Your task to perform on an android device: stop showing notifications on the lock screen Image 0: 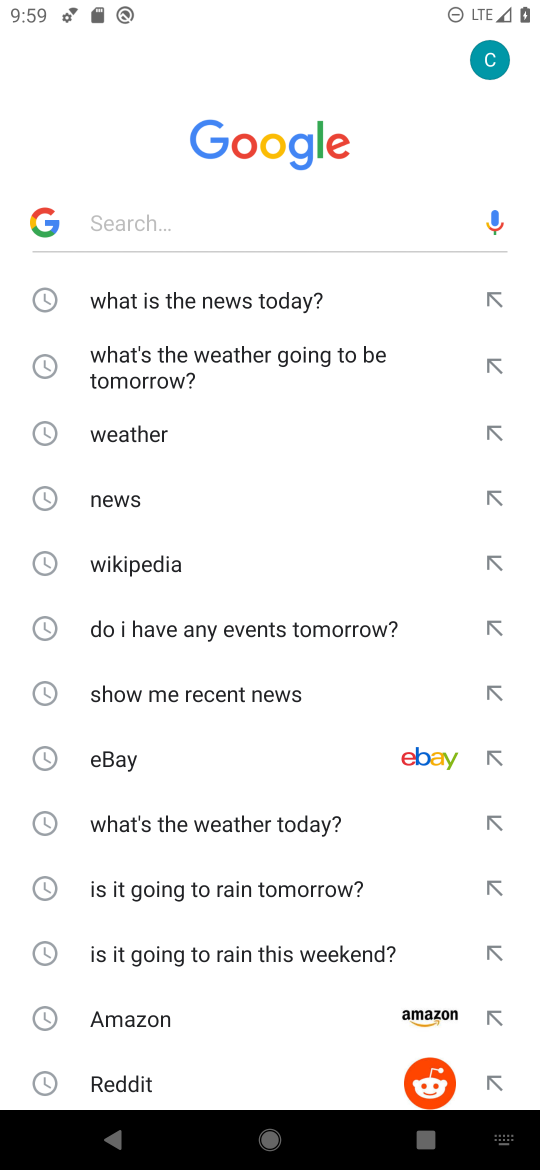
Step 0: press home button
Your task to perform on an android device: stop showing notifications on the lock screen Image 1: 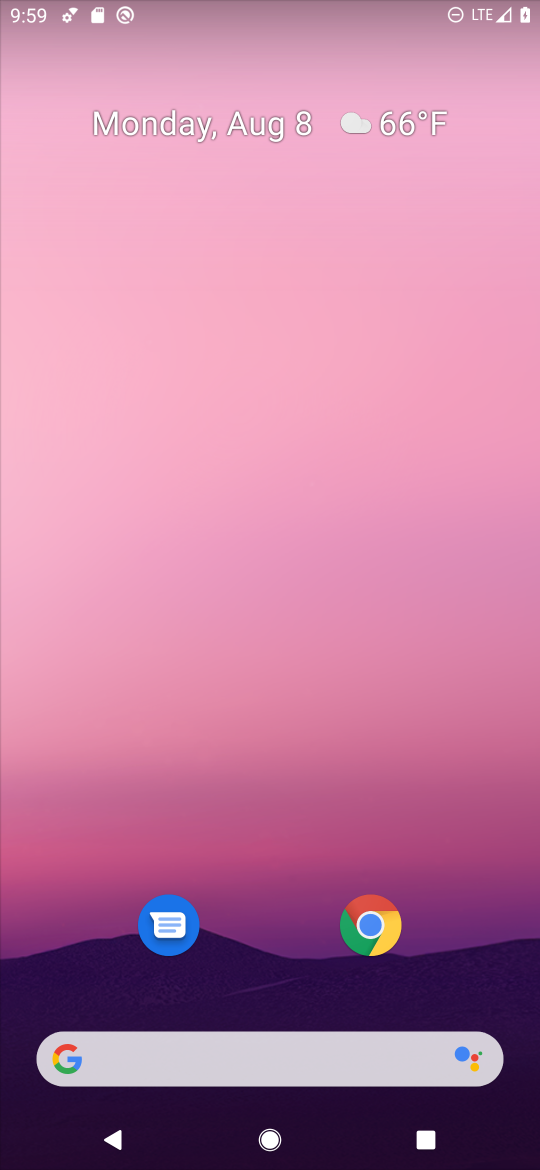
Step 1: drag from (259, 971) to (324, 36)
Your task to perform on an android device: stop showing notifications on the lock screen Image 2: 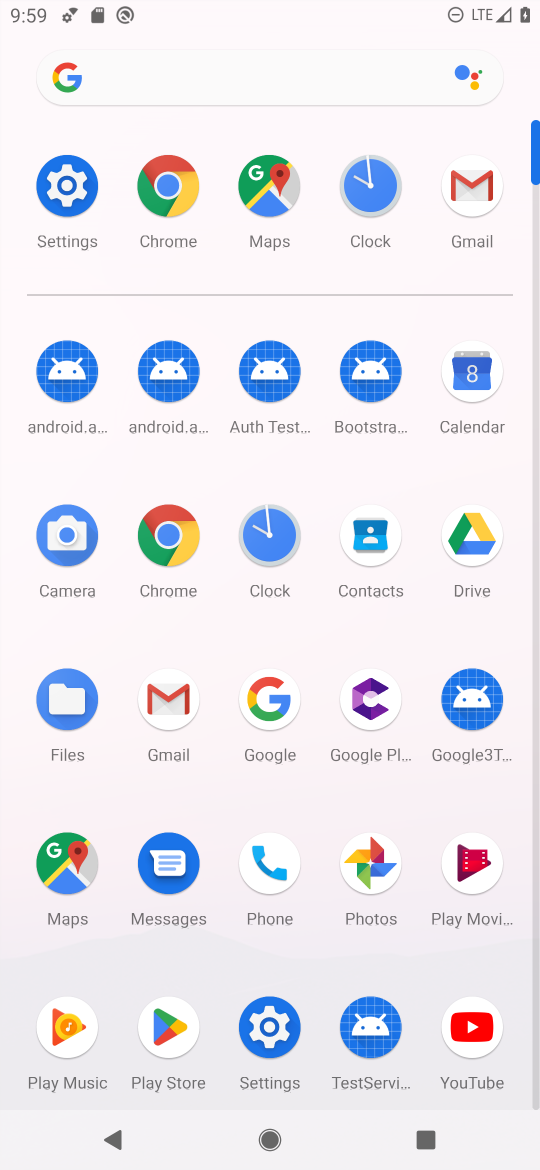
Step 2: click (268, 1021)
Your task to perform on an android device: stop showing notifications on the lock screen Image 3: 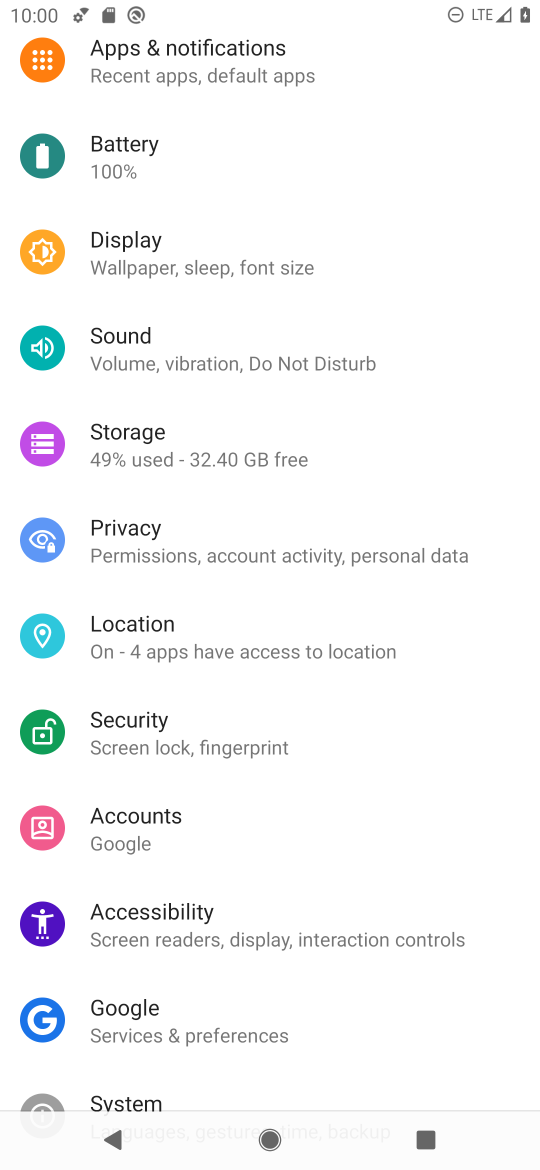
Step 3: click (198, 47)
Your task to perform on an android device: stop showing notifications on the lock screen Image 4: 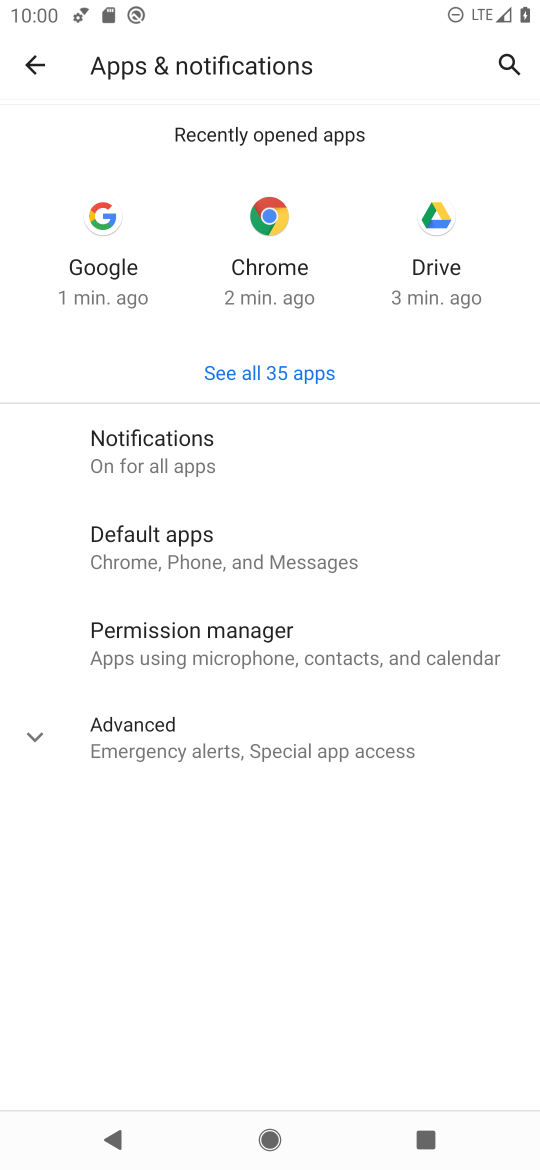
Step 4: click (162, 467)
Your task to perform on an android device: stop showing notifications on the lock screen Image 5: 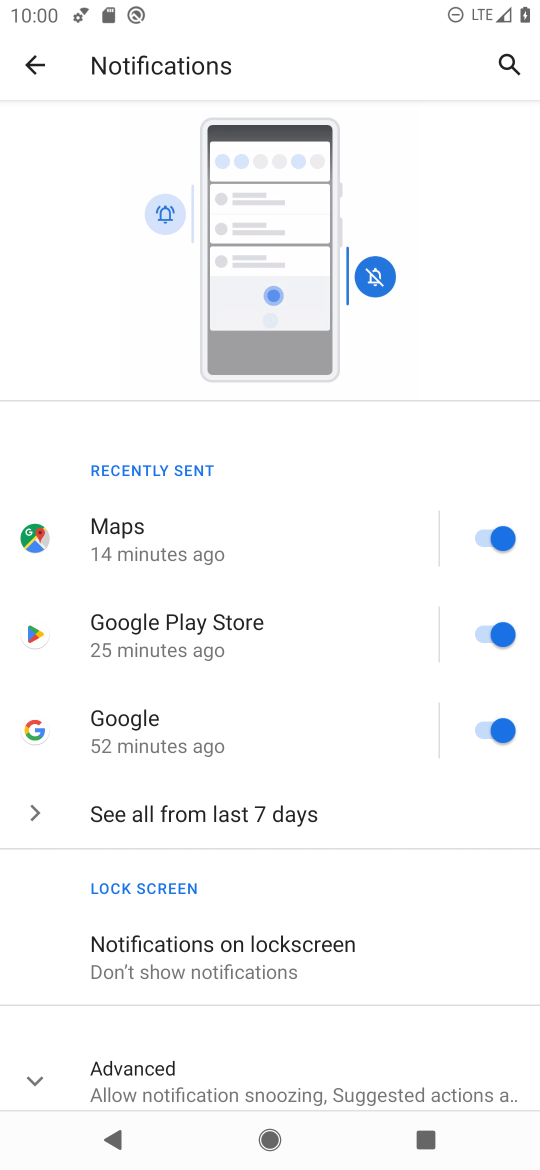
Step 5: drag from (314, 1049) to (357, 361)
Your task to perform on an android device: stop showing notifications on the lock screen Image 6: 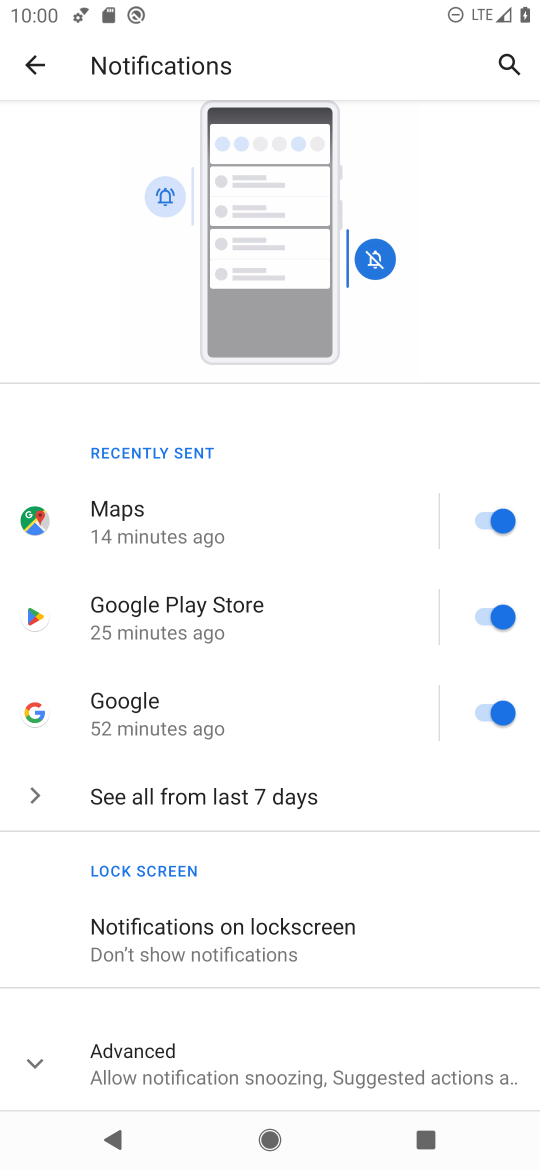
Step 6: click (230, 943)
Your task to perform on an android device: stop showing notifications on the lock screen Image 7: 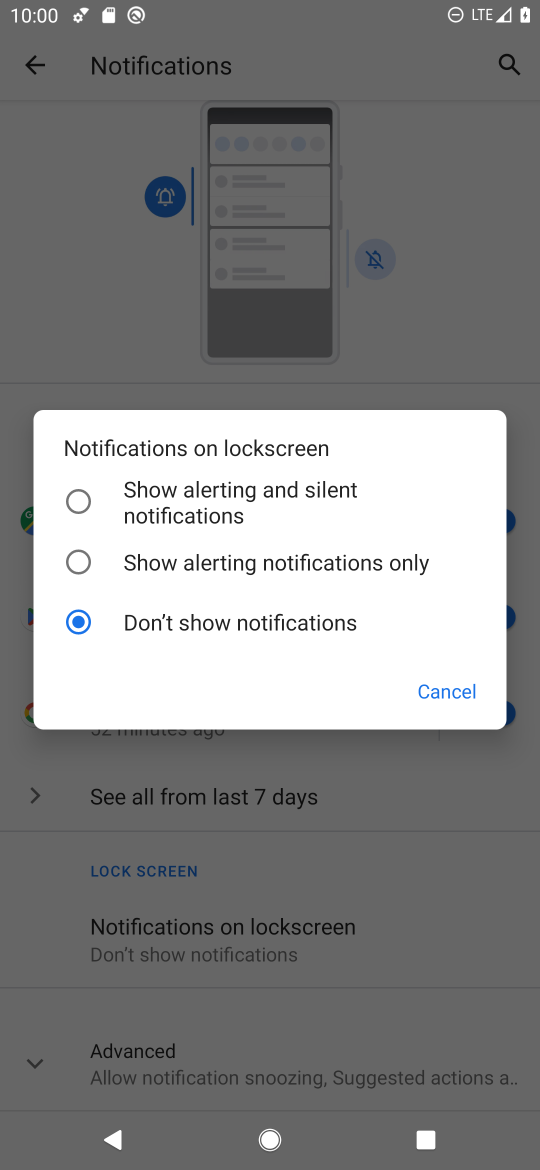
Step 7: task complete